Your task to perform on an android device: open app "Firefox Browser" (install if not already installed) and enter user name: "hashed@outlook.com" and password: "congestive" Image 0: 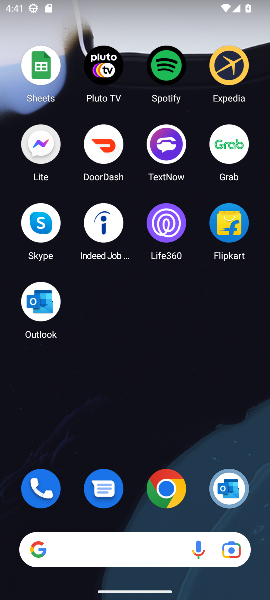
Step 0: drag from (129, 521) to (145, 99)
Your task to perform on an android device: open app "Firefox Browser" (install if not already installed) and enter user name: "hashed@outlook.com" and password: "congestive" Image 1: 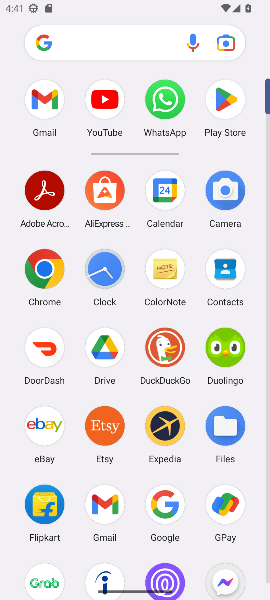
Step 1: click (228, 103)
Your task to perform on an android device: open app "Firefox Browser" (install if not already installed) and enter user name: "hashed@outlook.com" and password: "congestive" Image 2: 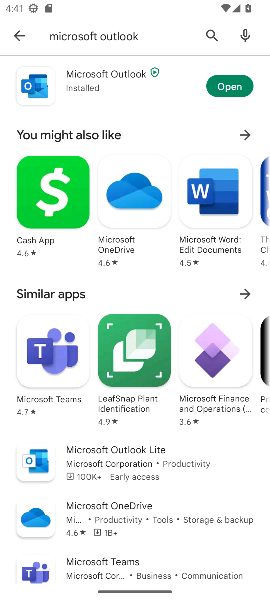
Step 2: click (207, 38)
Your task to perform on an android device: open app "Firefox Browser" (install if not already installed) and enter user name: "hashed@outlook.com" and password: "congestive" Image 3: 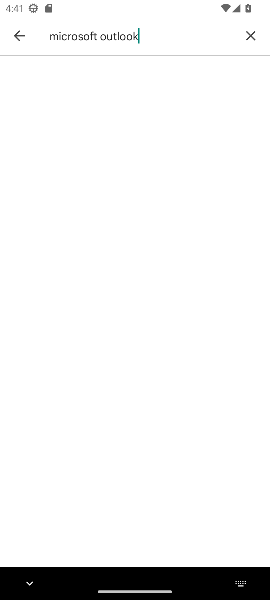
Step 3: click (248, 38)
Your task to perform on an android device: open app "Firefox Browser" (install if not already installed) and enter user name: "hashed@outlook.com" and password: "congestive" Image 4: 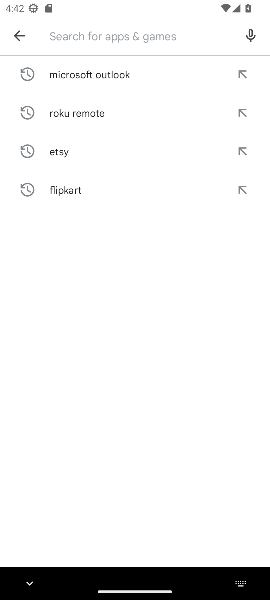
Step 4: type "firefox"
Your task to perform on an android device: open app "Firefox Browser" (install if not already installed) and enter user name: "hashed@outlook.com" and password: "congestive" Image 5: 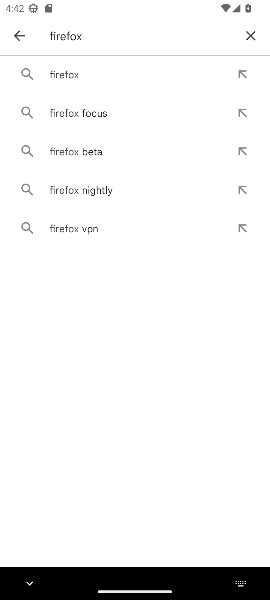
Step 5: click (90, 81)
Your task to perform on an android device: open app "Firefox Browser" (install if not already installed) and enter user name: "hashed@outlook.com" and password: "congestive" Image 6: 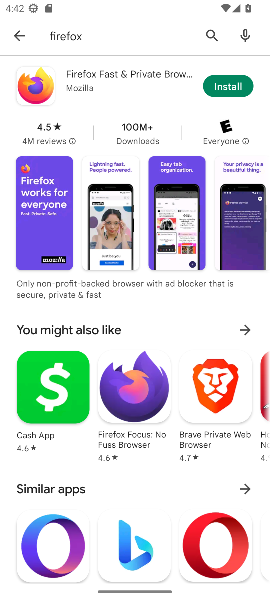
Step 6: click (231, 85)
Your task to perform on an android device: open app "Firefox Browser" (install if not already installed) and enter user name: "hashed@outlook.com" and password: "congestive" Image 7: 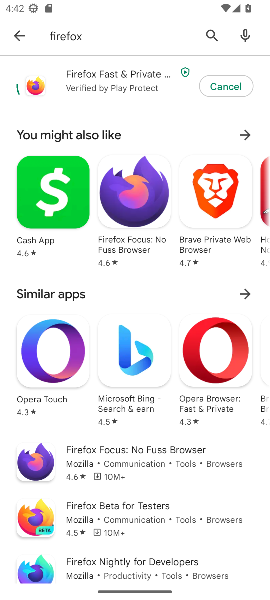
Step 7: task complete